Your task to perform on an android device: turn on sleep mode Image 0: 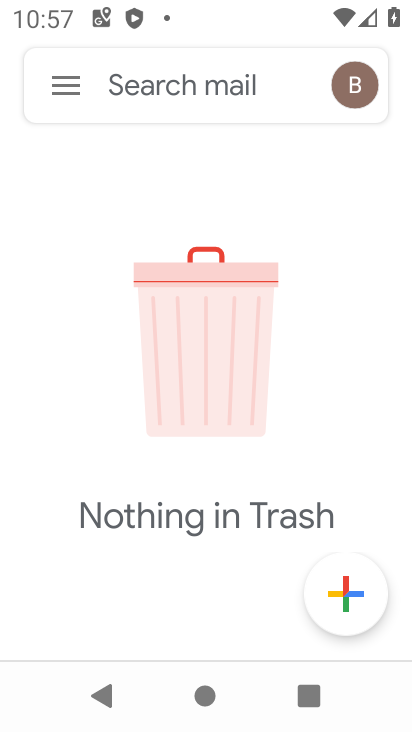
Step 0: press home button
Your task to perform on an android device: turn on sleep mode Image 1: 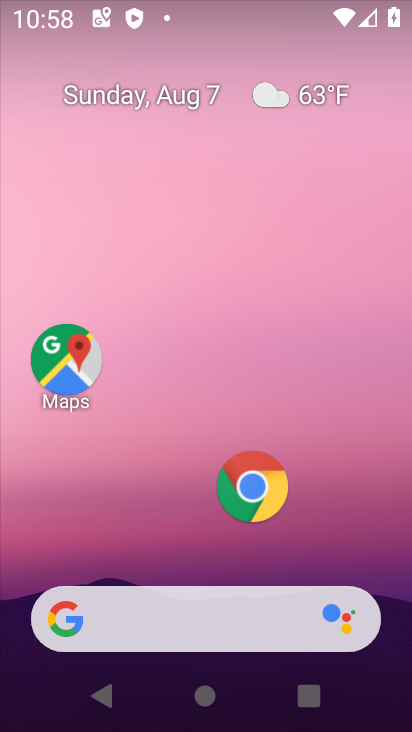
Step 1: drag from (161, 671) to (186, 2)
Your task to perform on an android device: turn on sleep mode Image 2: 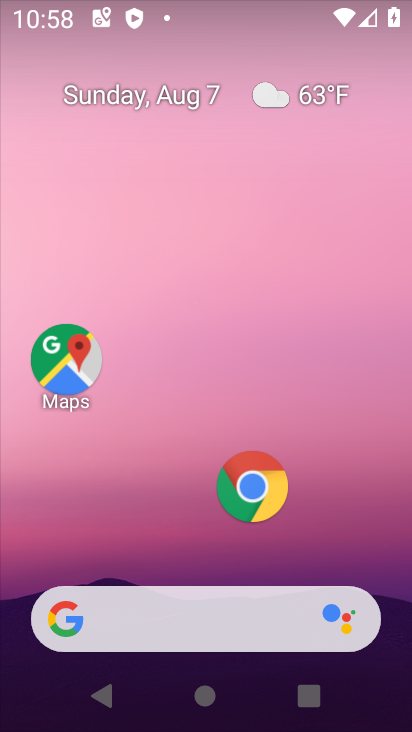
Step 2: drag from (131, 701) to (286, 29)
Your task to perform on an android device: turn on sleep mode Image 3: 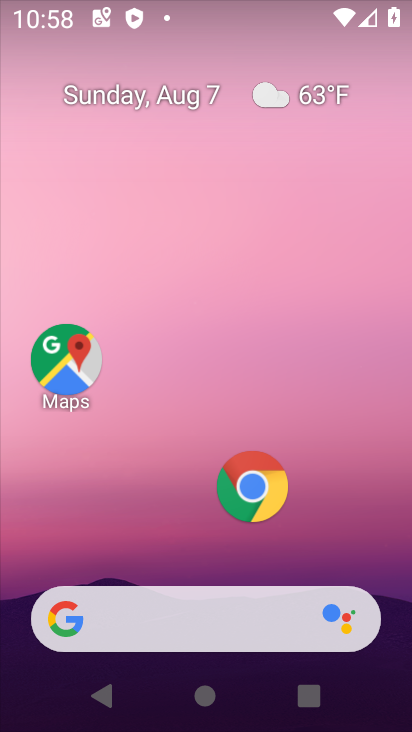
Step 3: drag from (178, 704) to (209, 201)
Your task to perform on an android device: turn on sleep mode Image 4: 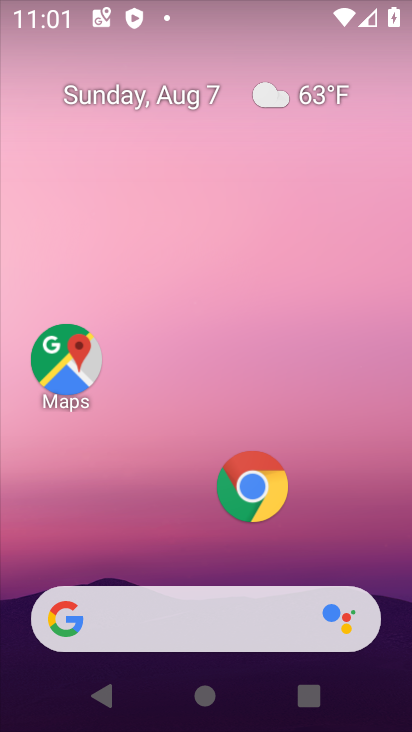
Step 4: drag from (125, 438) to (194, 332)
Your task to perform on an android device: turn on sleep mode Image 5: 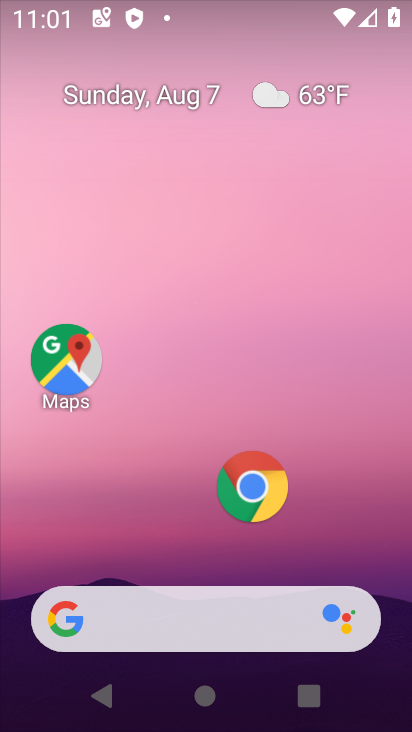
Step 5: drag from (17, 713) to (375, 112)
Your task to perform on an android device: turn on sleep mode Image 6: 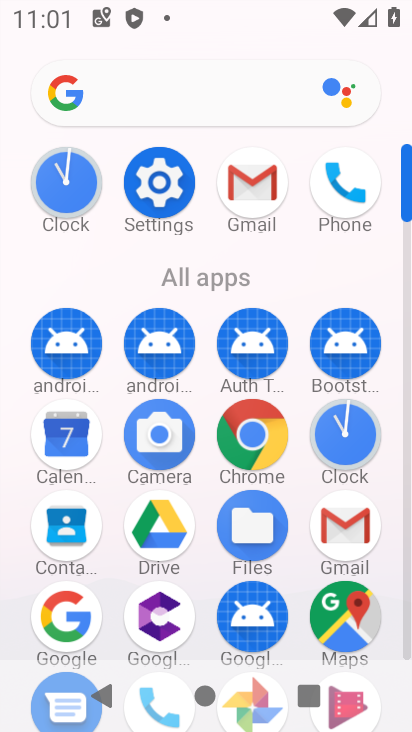
Step 6: click (164, 162)
Your task to perform on an android device: turn on sleep mode Image 7: 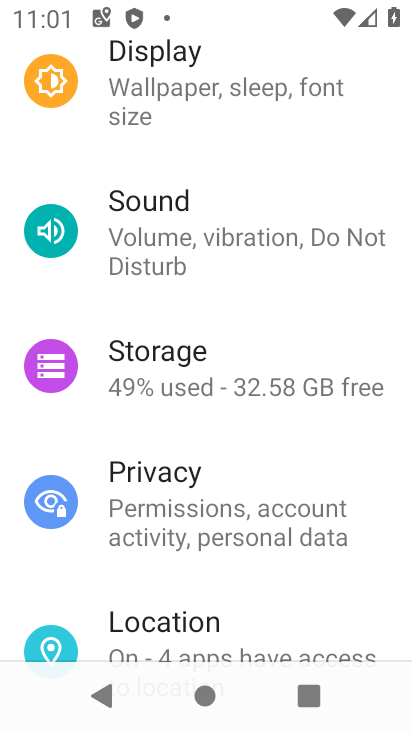
Step 7: click (243, 91)
Your task to perform on an android device: turn on sleep mode Image 8: 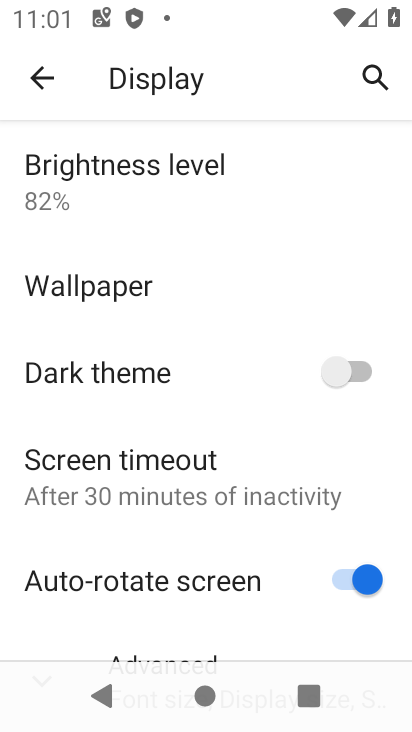
Step 8: task complete